Your task to perform on an android device: Go to Reddit.com Image 0: 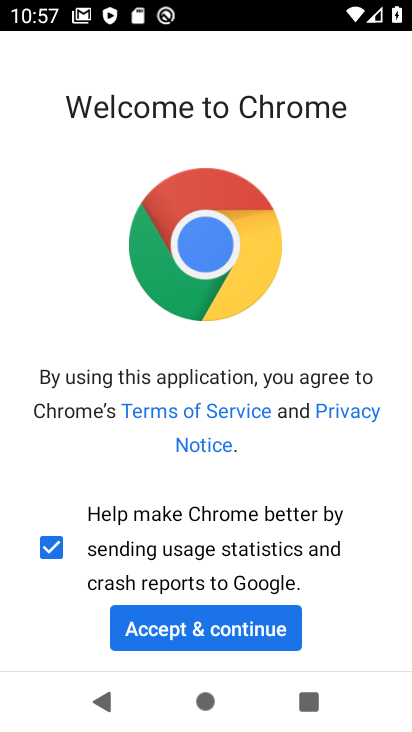
Step 0: click (216, 633)
Your task to perform on an android device: Go to Reddit.com Image 1: 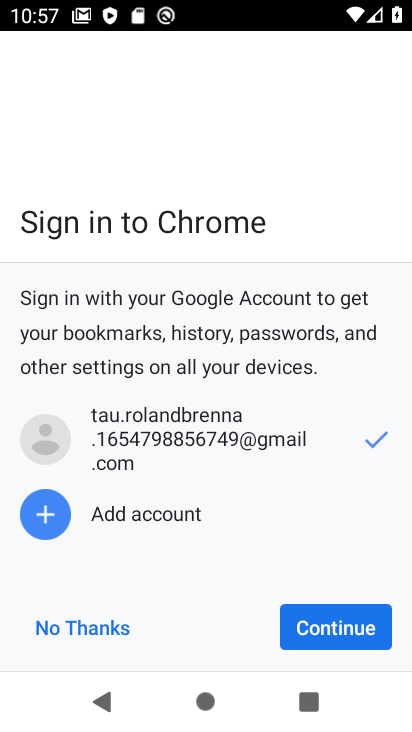
Step 1: click (321, 628)
Your task to perform on an android device: Go to Reddit.com Image 2: 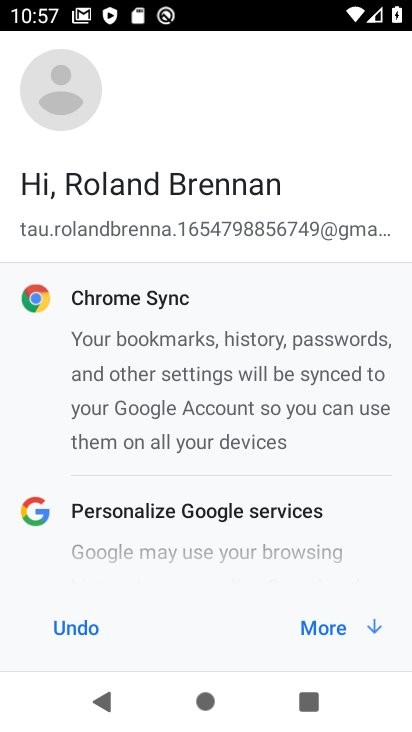
Step 2: click (321, 627)
Your task to perform on an android device: Go to Reddit.com Image 3: 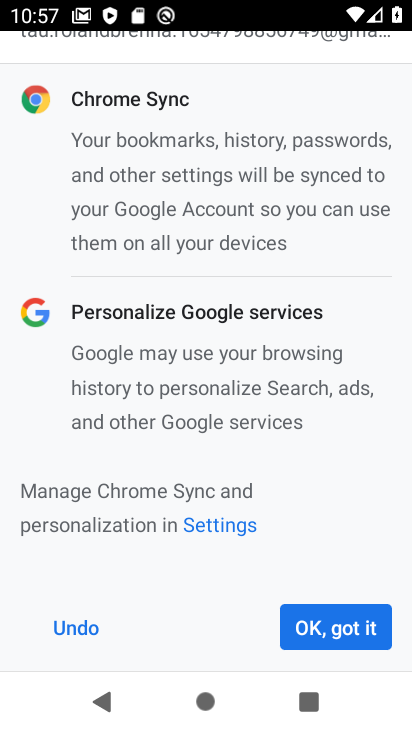
Step 3: click (321, 626)
Your task to perform on an android device: Go to Reddit.com Image 4: 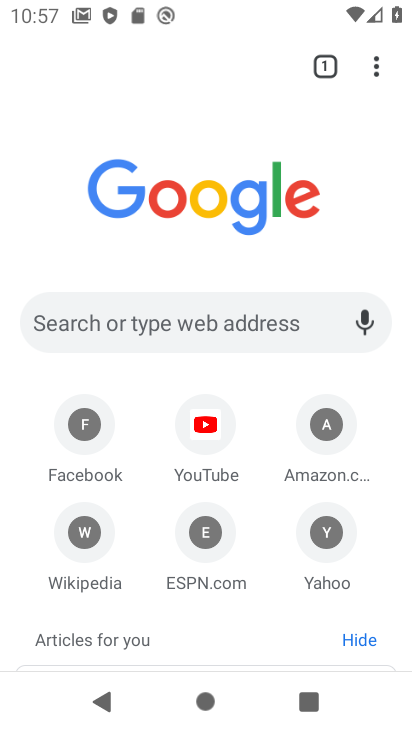
Step 4: click (193, 319)
Your task to perform on an android device: Go to Reddit.com Image 5: 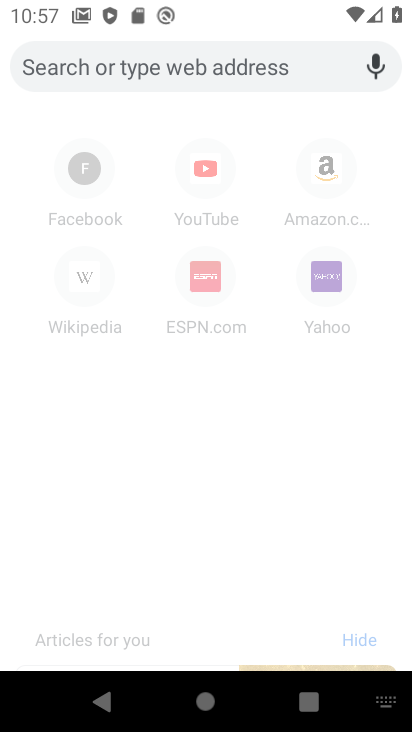
Step 5: type "reddit.com"
Your task to perform on an android device: Go to Reddit.com Image 6: 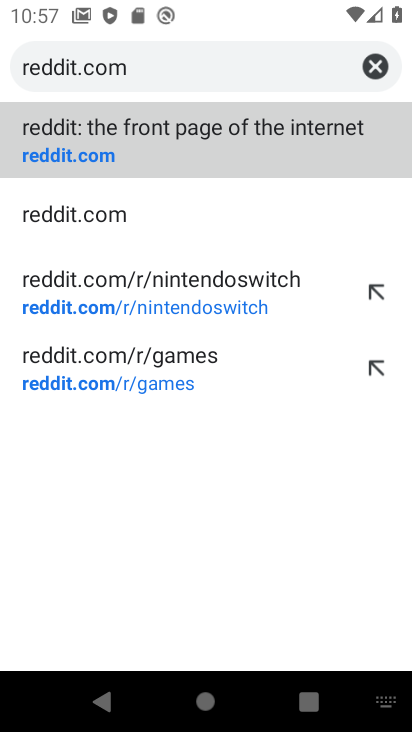
Step 6: click (122, 144)
Your task to perform on an android device: Go to Reddit.com Image 7: 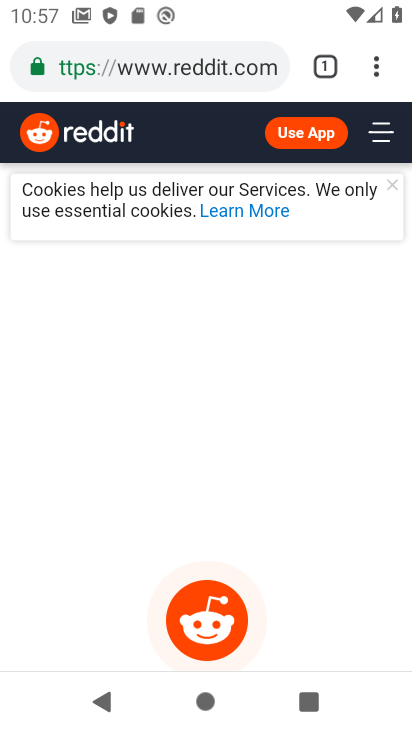
Step 7: task complete